Your task to perform on an android device: Is it going to rain this weekend? Image 0: 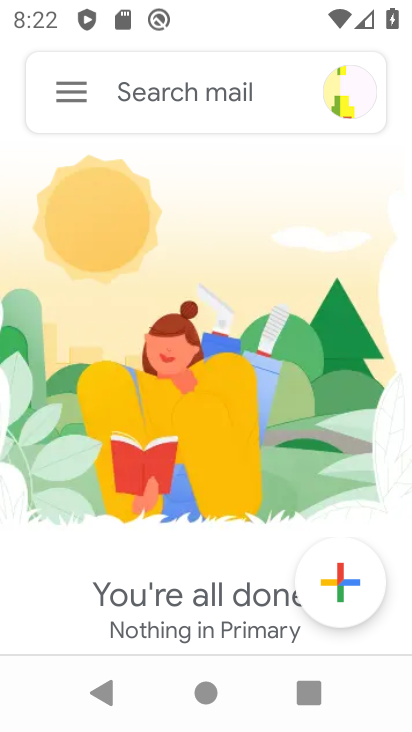
Step 0: press home button
Your task to perform on an android device: Is it going to rain this weekend? Image 1: 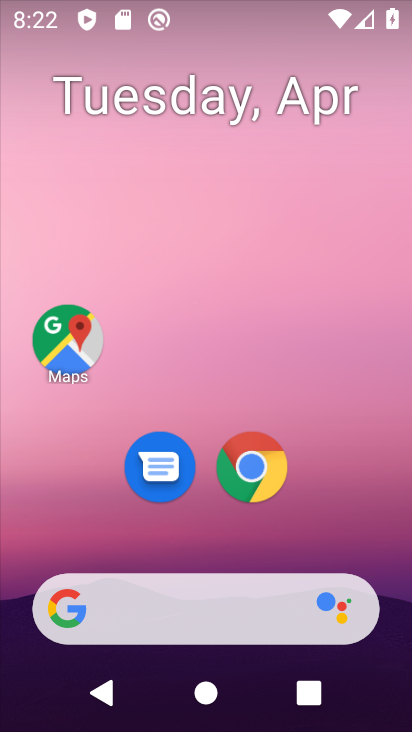
Step 1: drag from (46, 221) to (406, 222)
Your task to perform on an android device: Is it going to rain this weekend? Image 2: 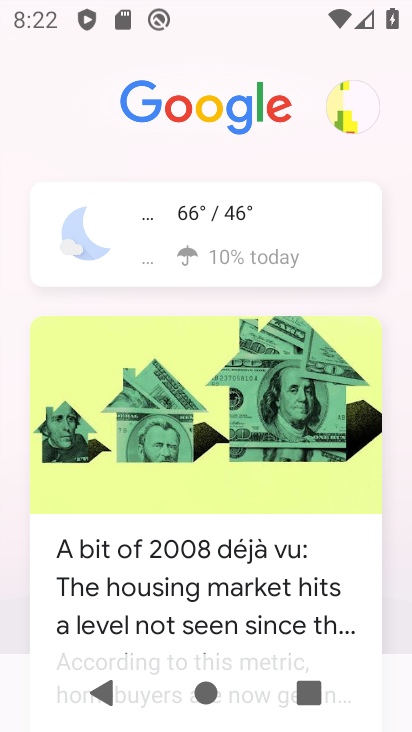
Step 2: click (207, 222)
Your task to perform on an android device: Is it going to rain this weekend? Image 3: 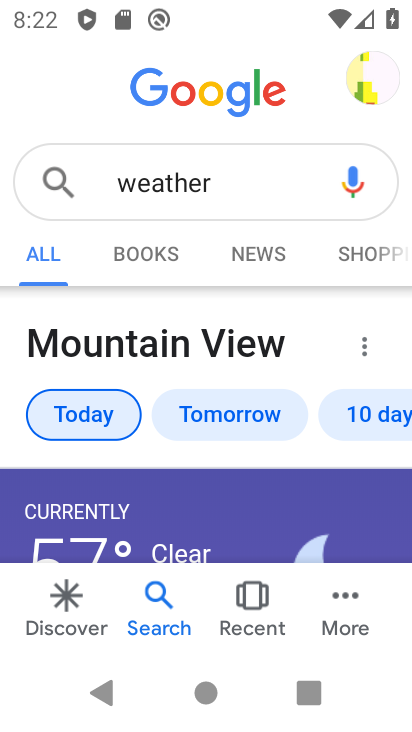
Step 3: drag from (229, 473) to (221, 370)
Your task to perform on an android device: Is it going to rain this weekend? Image 4: 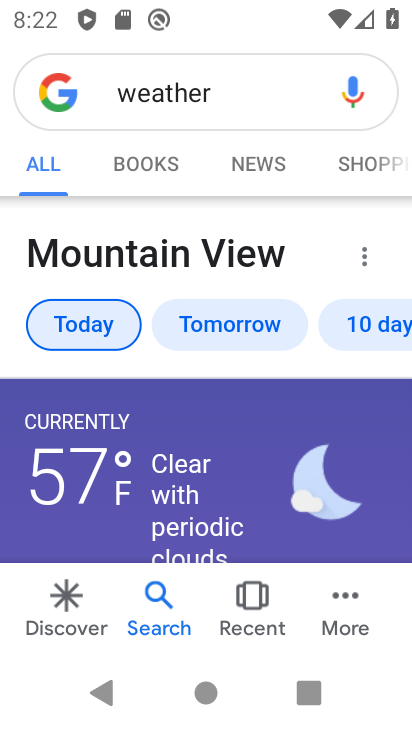
Step 4: click (388, 320)
Your task to perform on an android device: Is it going to rain this weekend? Image 5: 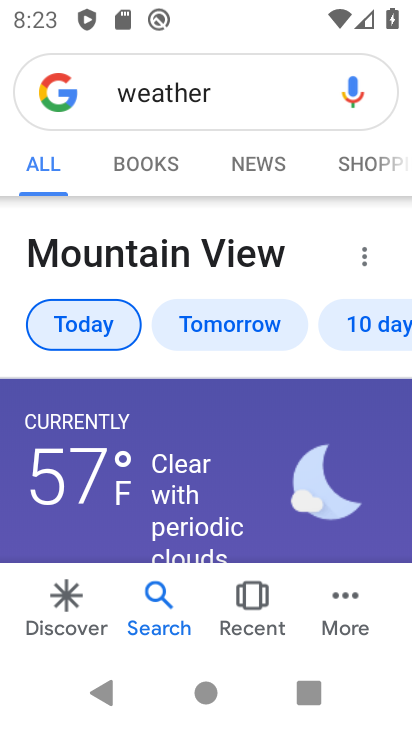
Step 5: click (367, 322)
Your task to perform on an android device: Is it going to rain this weekend? Image 6: 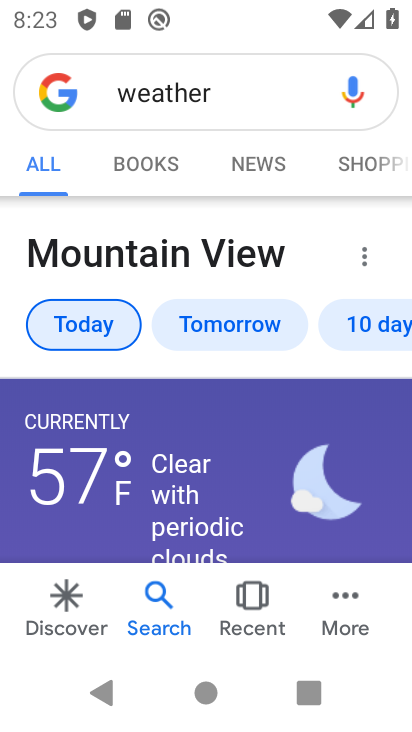
Step 6: click (367, 322)
Your task to perform on an android device: Is it going to rain this weekend? Image 7: 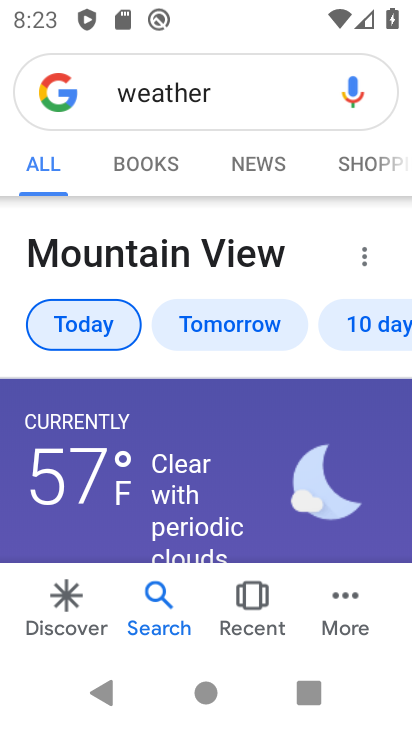
Step 7: click (367, 322)
Your task to perform on an android device: Is it going to rain this weekend? Image 8: 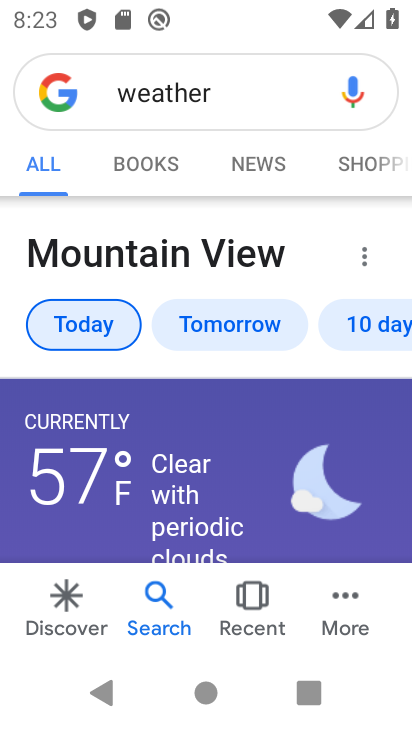
Step 8: click (369, 328)
Your task to perform on an android device: Is it going to rain this weekend? Image 9: 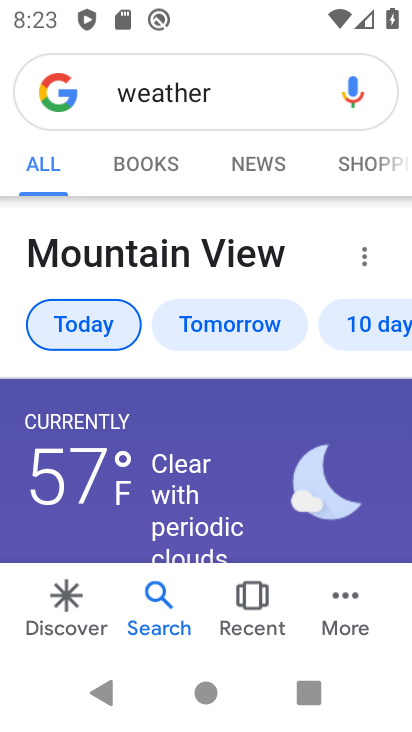
Step 9: click (384, 332)
Your task to perform on an android device: Is it going to rain this weekend? Image 10: 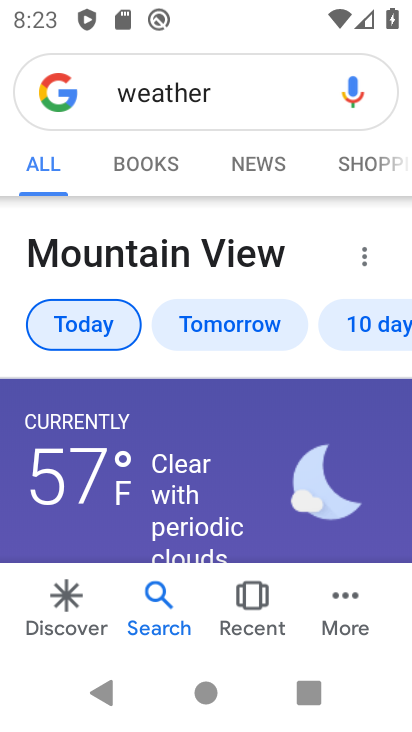
Step 10: click (384, 332)
Your task to perform on an android device: Is it going to rain this weekend? Image 11: 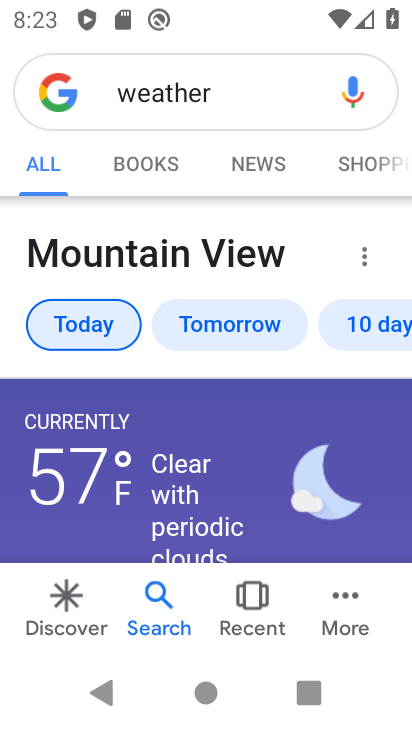
Step 11: click (384, 332)
Your task to perform on an android device: Is it going to rain this weekend? Image 12: 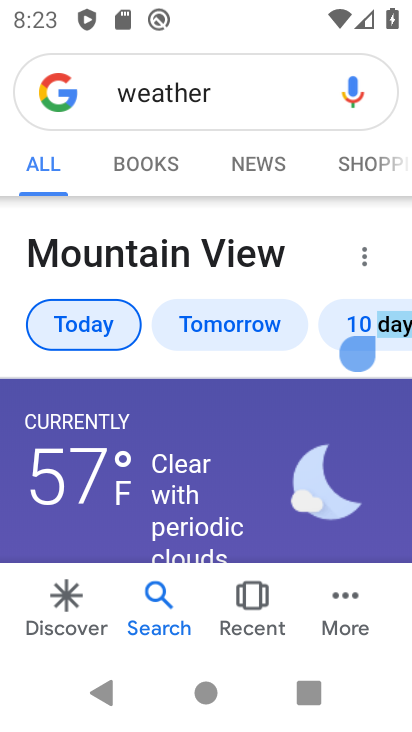
Step 12: click (375, 337)
Your task to perform on an android device: Is it going to rain this weekend? Image 13: 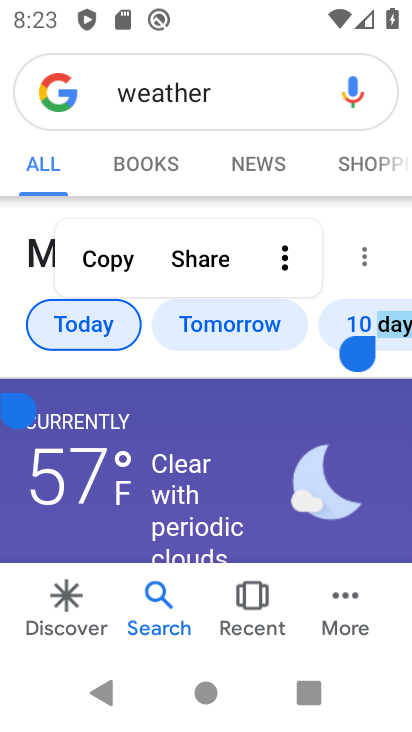
Step 13: click (354, 327)
Your task to perform on an android device: Is it going to rain this weekend? Image 14: 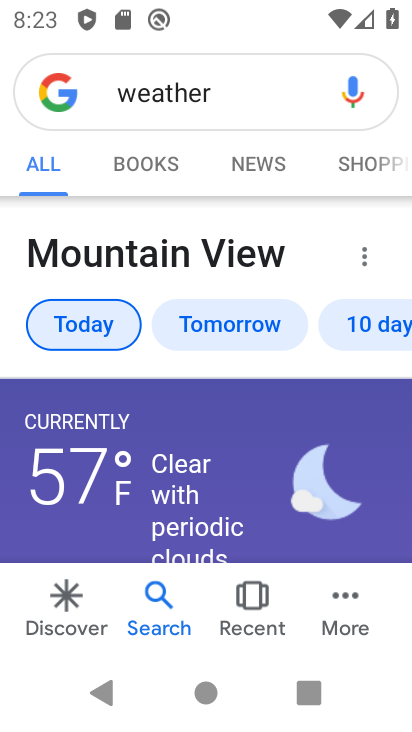
Step 14: task complete